Your task to perform on an android device: Toggle the flashlight Image 0: 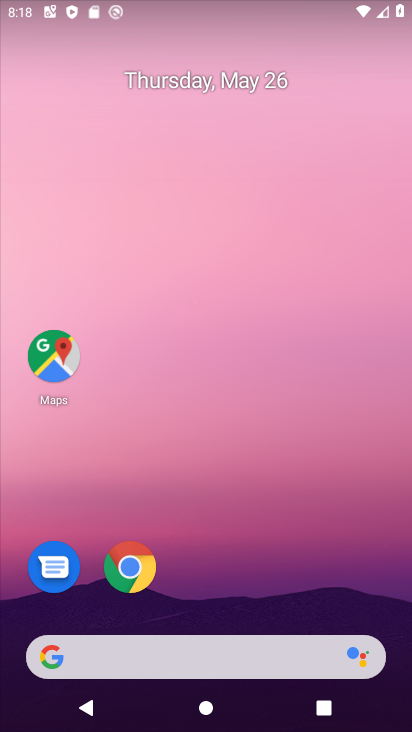
Step 0: press home button
Your task to perform on an android device: Toggle the flashlight Image 1: 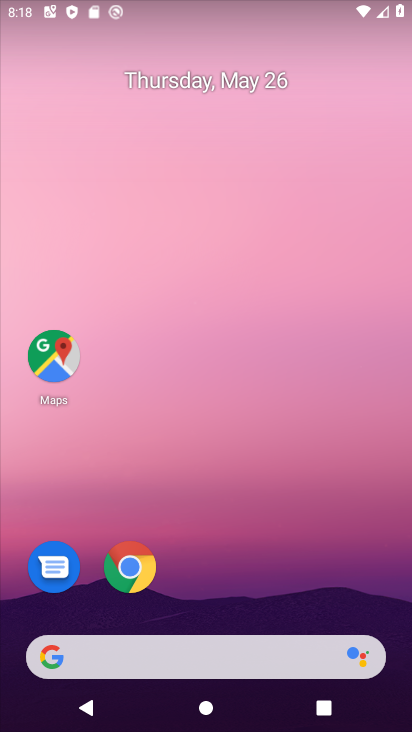
Step 1: task complete